Your task to perform on an android device: What's the weather going to be tomorrow? Image 0: 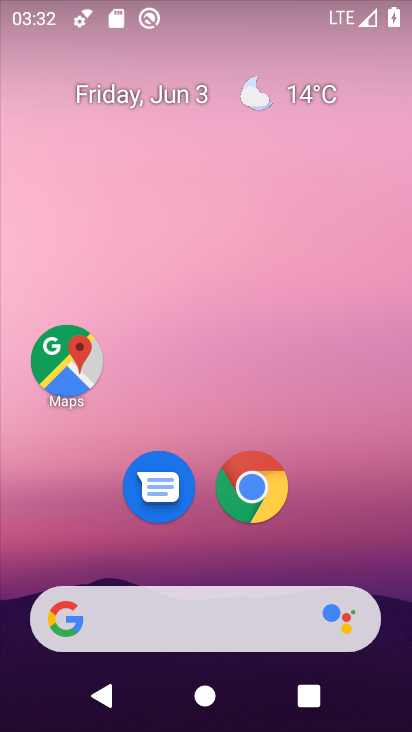
Step 0: press home button
Your task to perform on an android device: What's the weather going to be tomorrow? Image 1: 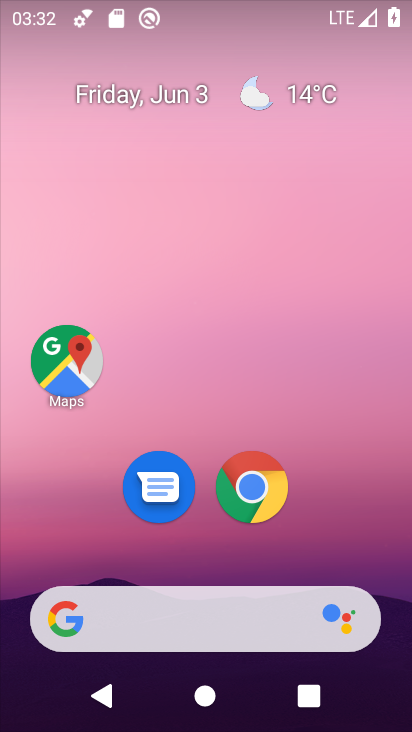
Step 1: click (290, 90)
Your task to perform on an android device: What's the weather going to be tomorrow? Image 2: 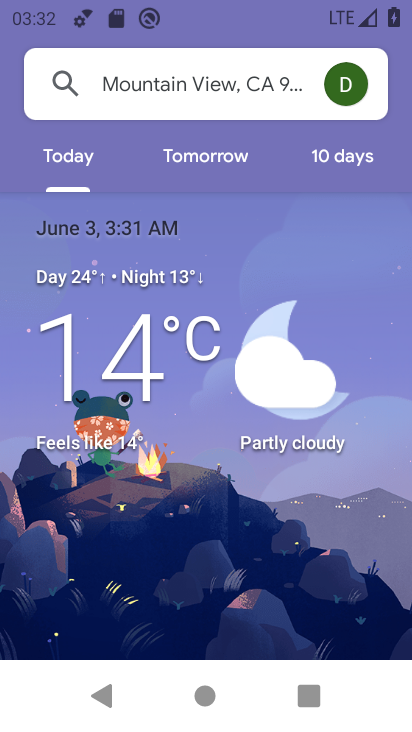
Step 2: click (197, 148)
Your task to perform on an android device: What's the weather going to be tomorrow? Image 3: 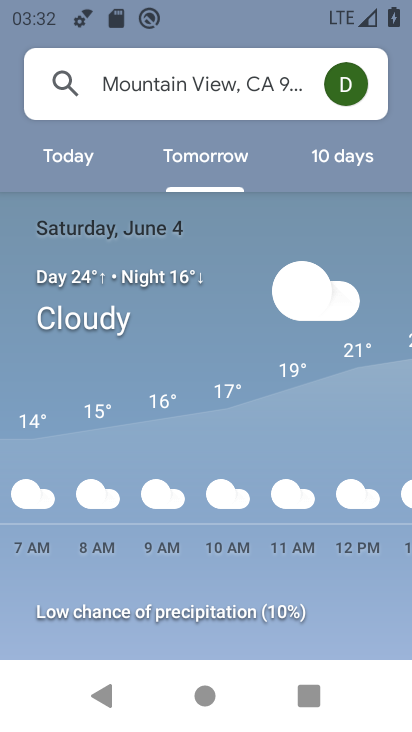
Step 3: task complete